Your task to perform on an android device: Go to notification settings Image 0: 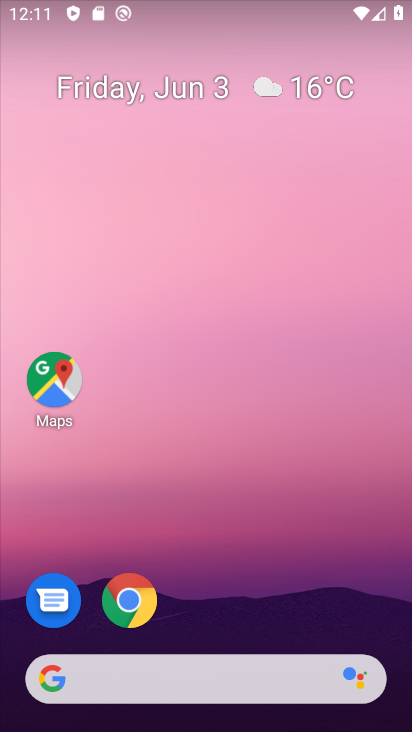
Step 0: drag from (272, 602) to (242, 219)
Your task to perform on an android device: Go to notification settings Image 1: 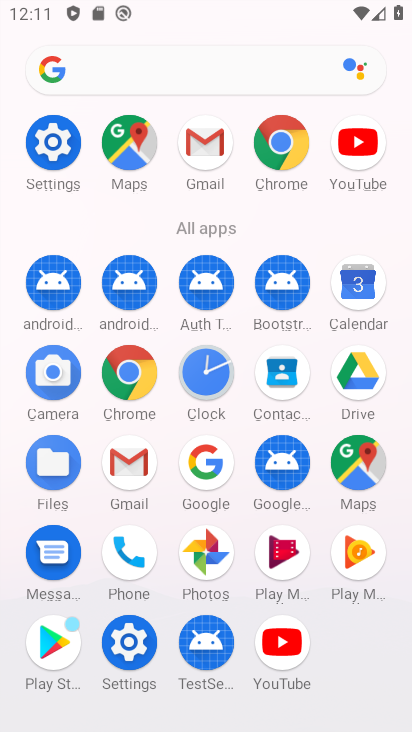
Step 1: click (67, 148)
Your task to perform on an android device: Go to notification settings Image 2: 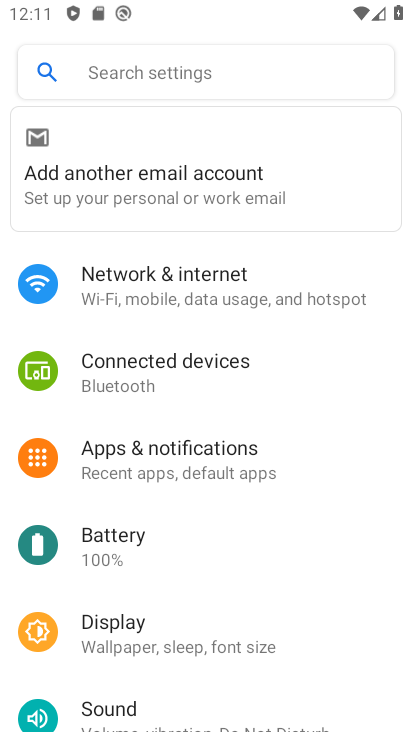
Step 2: click (201, 452)
Your task to perform on an android device: Go to notification settings Image 3: 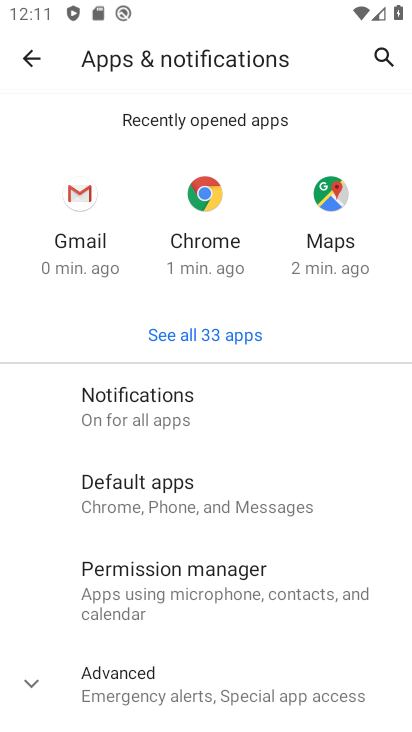
Step 3: click (147, 405)
Your task to perform on an android device: Go to notification settings Image 4: 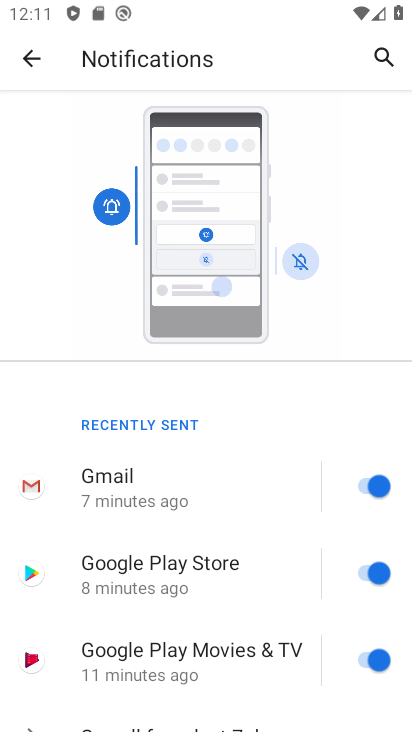
Step 4: task complete